Your task to perform on an android device: open chrome privacy settings Image 0: 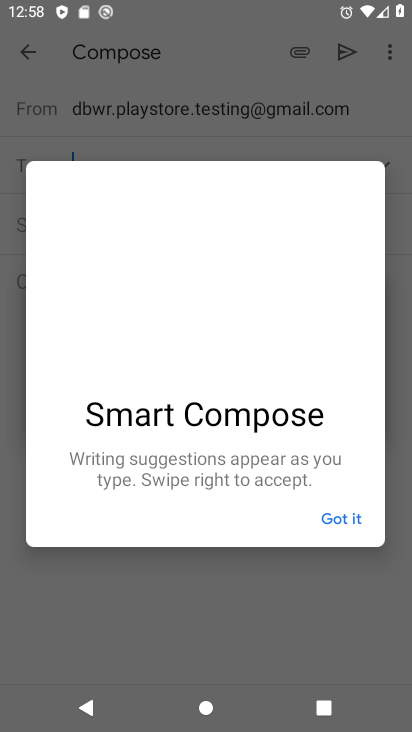
Step 0: click (329, 497)
Your task to perform on an android device: open chrome privacy settings Image 1: 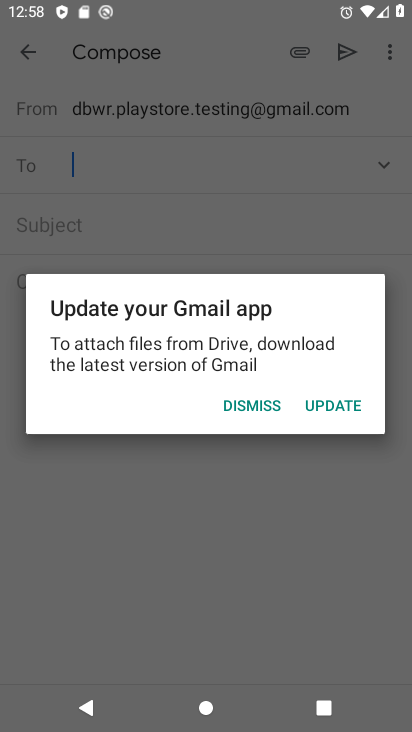
Step 1: press home button
Your task to perform on an android device: open chrome privacy settings Image 2: 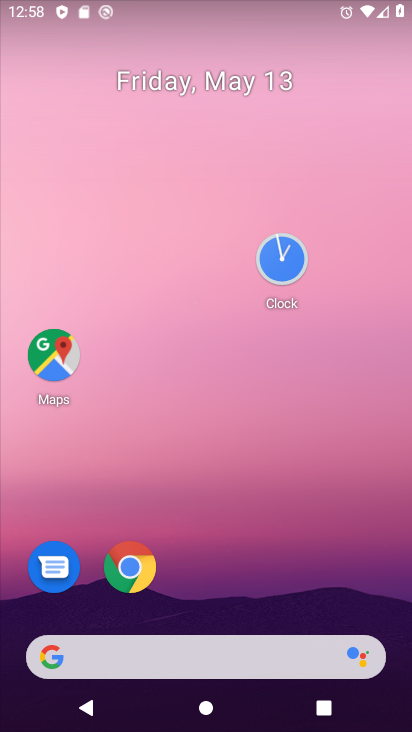
Step 2: drag from (248, 585) to (301, 121)
Your task to perform on an android device: open chrome privacy settings Image 3: 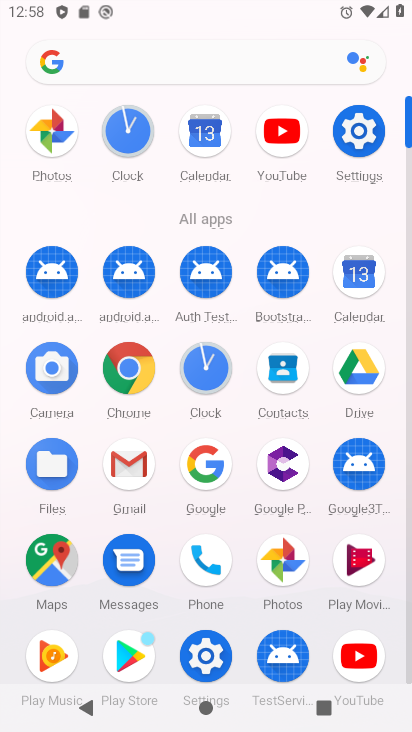
Step 3: click (364, 135)
Your task to perform on an android device: open chrome privacy settings Image 4: 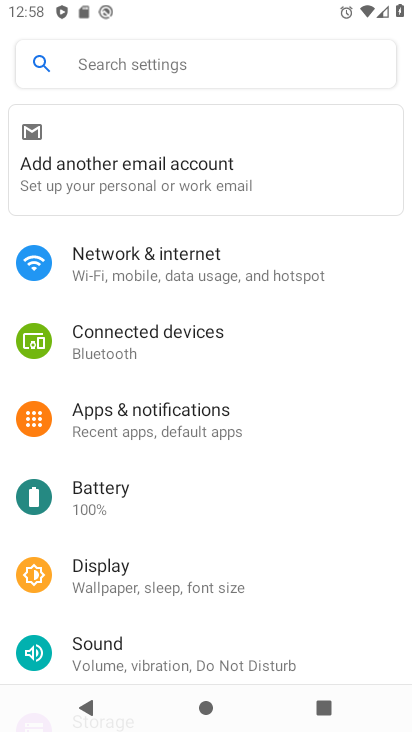
Step 4: drag from (119, 574) to (223, 299)
Your task to perform on an android device: open chrome privacy settings Image 5: 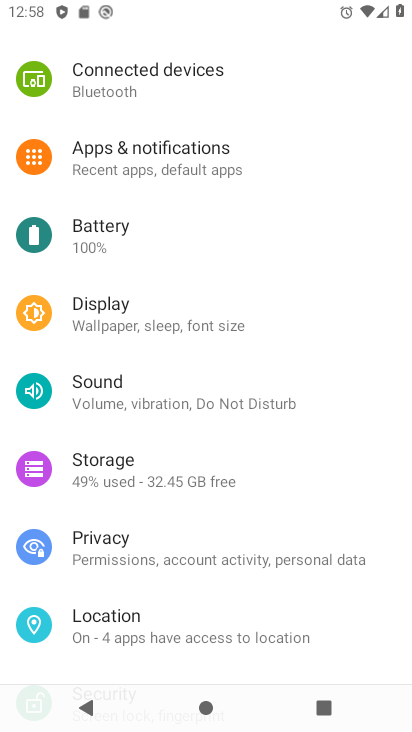
Step 5: press home button
Your task to perform on an android device: open chrome privacy settings Image 6: 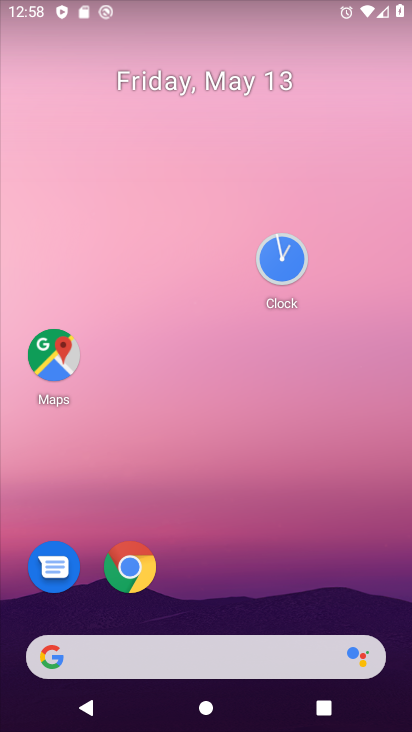
Step 6: click (133, 569)
Your task to perform on an android device: open chrome privacy settings Image 7: 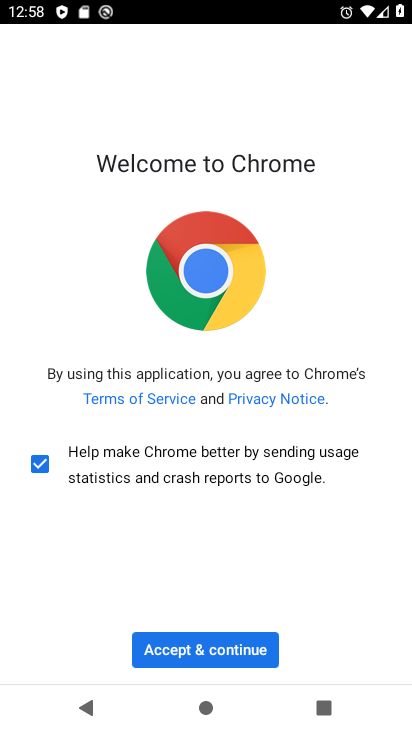
Step 7: click (205, 655)
Your task to perform on an android device: open chrome privacy settings Image 8: 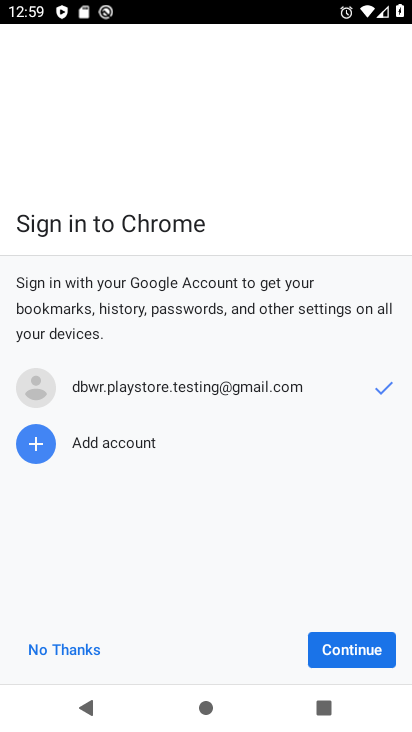
Step 8: click (331, 659)
Your task to perform on an android device: open chrome privacy settings Image 9: 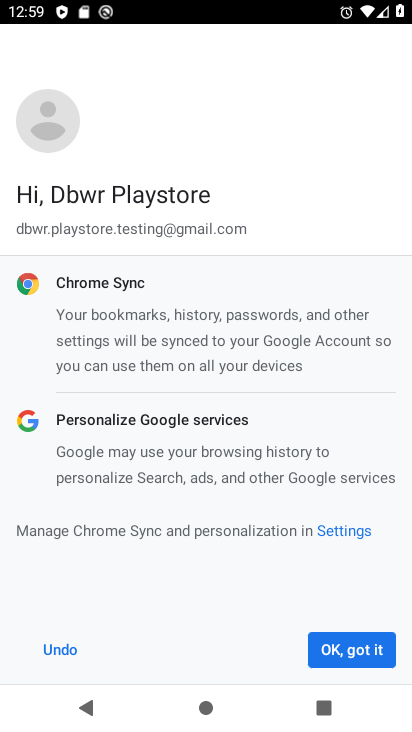
Step 9: click (331, 659)
Your task to perform on an android device: open chrome privacy settings Image 10: 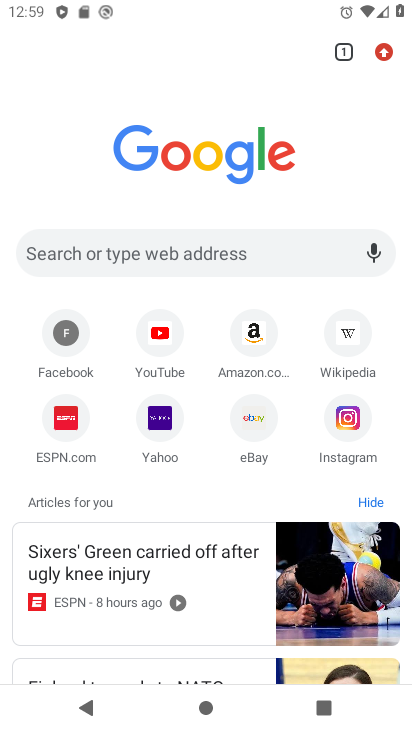
Step 10: click (381, 49)
Your task to perform on an android device: open chrome privacy settings Image 11: 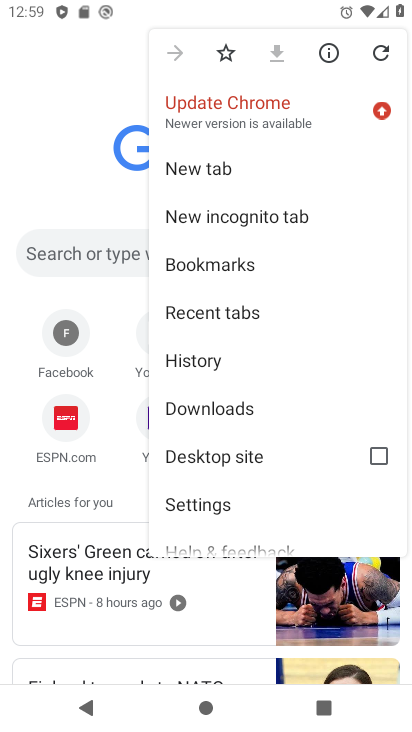
Step 11: click (216, 503)
Your task to perform on an android device: open chrome privacy settings Image 12: 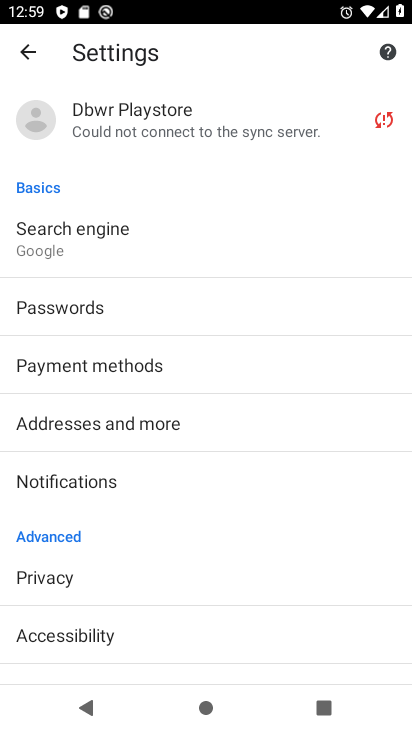
Step 12: click (81, 578)
Your task to perform on an android device: open chrome privacy settings Image 13: 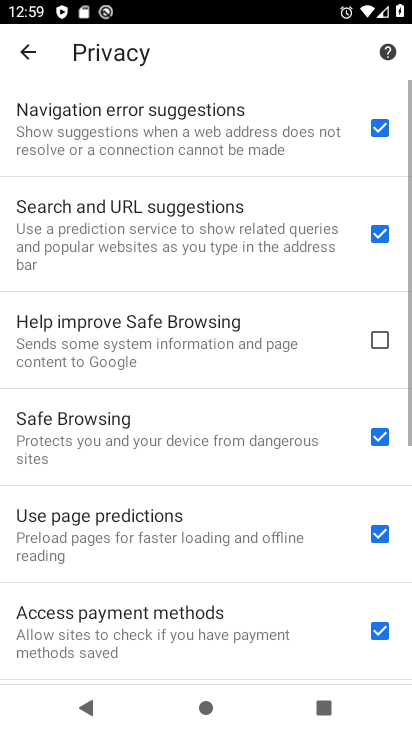
Step 13: task complete